Your task to perform on an android device: turn off wifi Image 0: 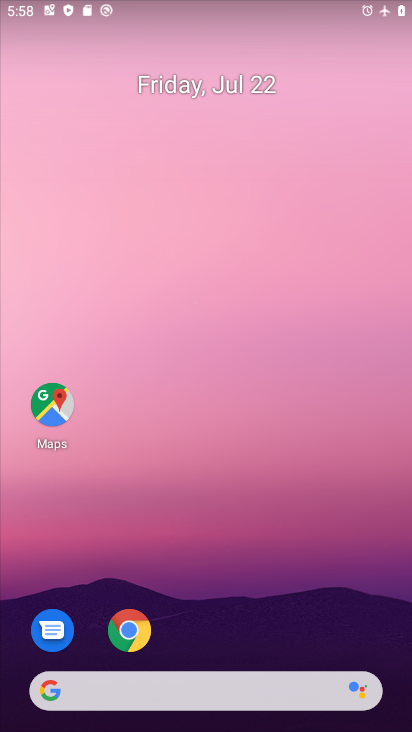
Step 0: drag from (169, 636) to (211, 95)
Your task to perform on an android device: turn off wifi Image 1: 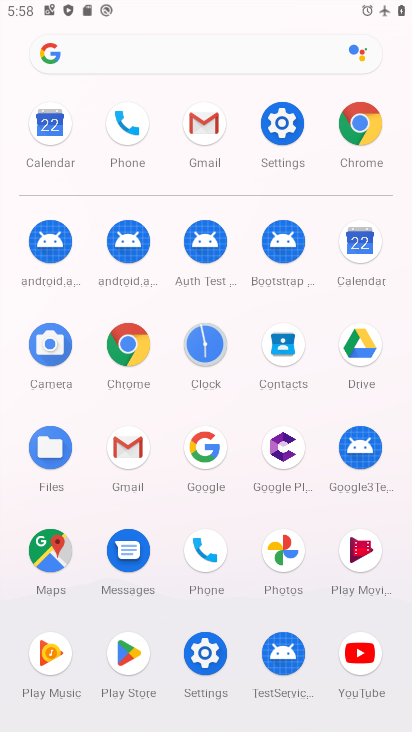
Step 1: click (275, 129)
Your task to perform on an android device: turn off wifi Image 2: 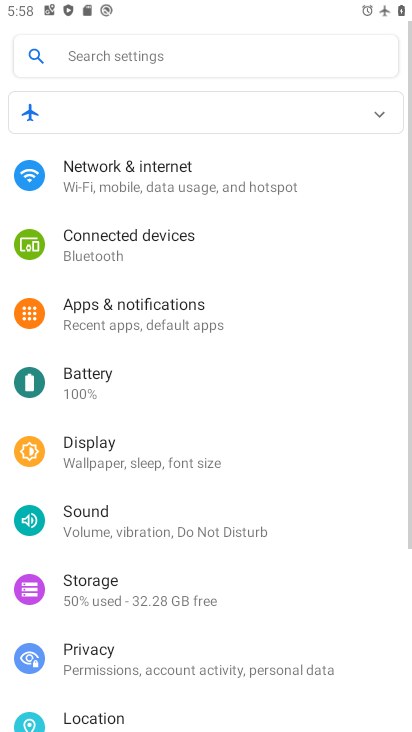
Step 2: click (136, 181)
Your task to perform on an android device: turn off wifi Image 3: 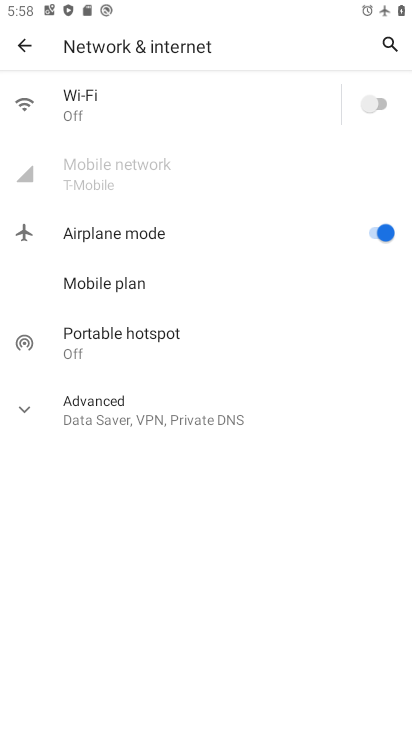
Step 3: click (82, 102)
Your task to perform on an android device: turn off wifi Image 4: 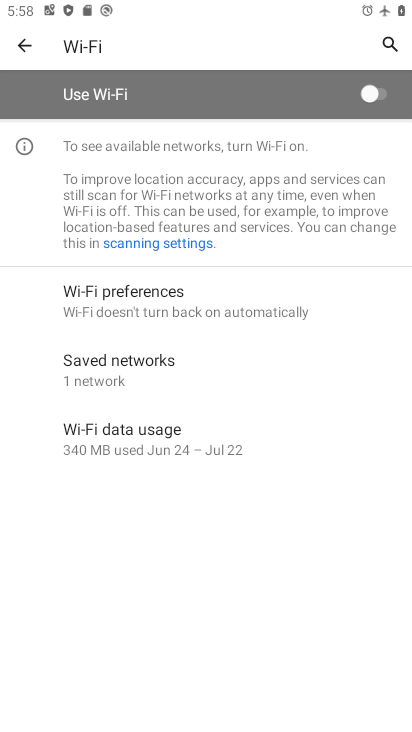
Step 4: task complete